Your task to perform on an android device: turn on notifications settings in the gmail app Image 0: 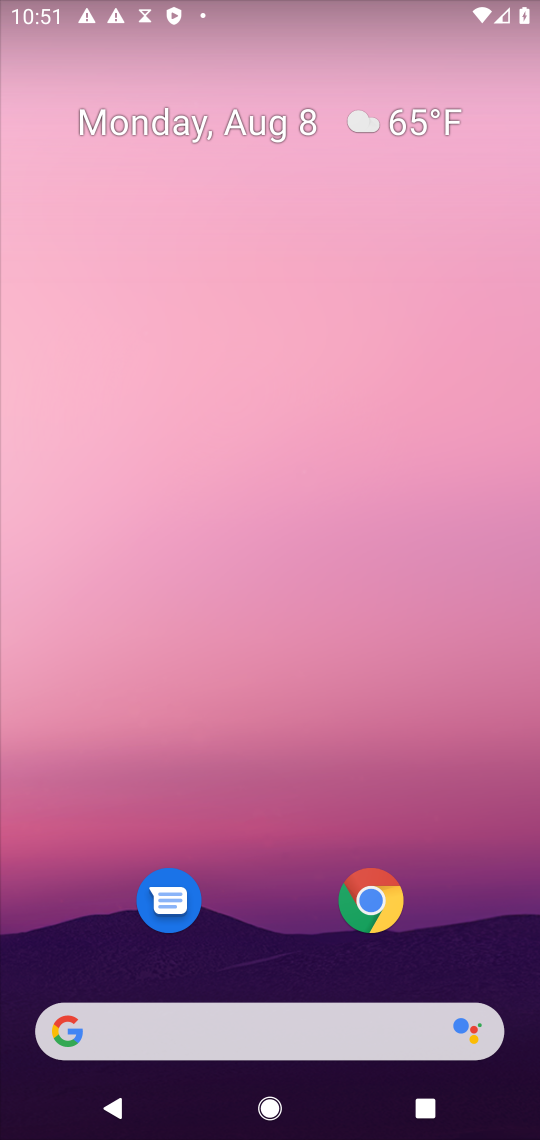
Step 0: drag from (200, 236) to (200, 185)
Your task to perform on an android device: turn on notifications settings in the gmail app Image 1: 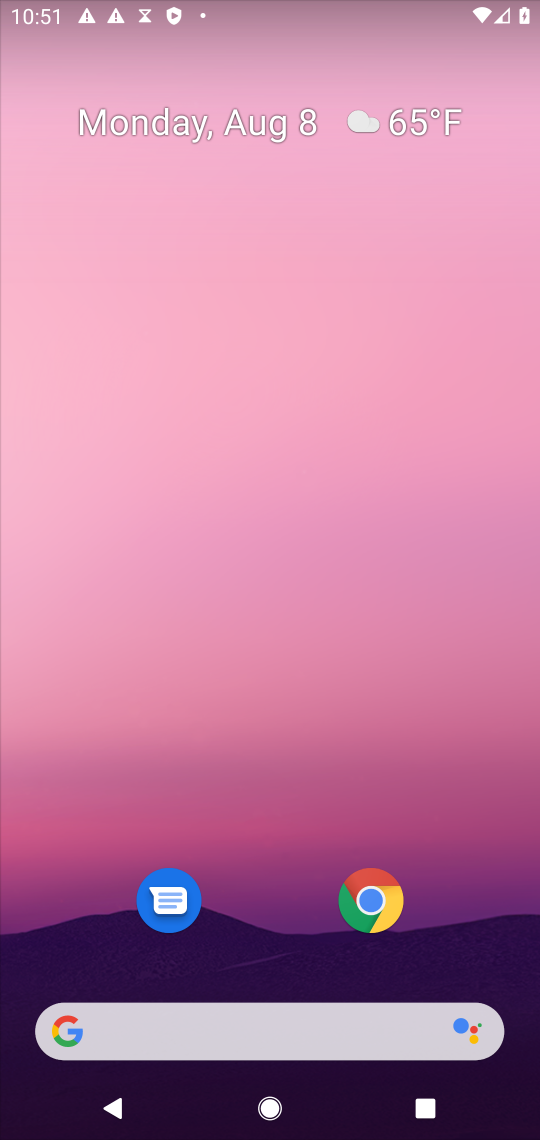
Step 1: drag from (264, 886) to (264, 257)
Your task to perform on an android device: turn on notifications settings in the gmail app Image 2: 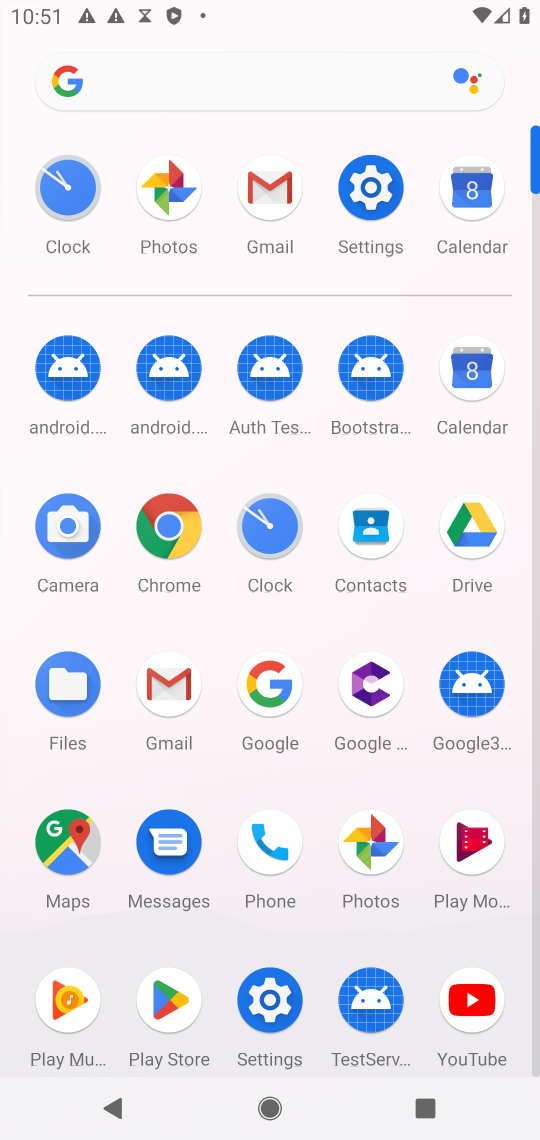
Step 2: click (167, 694)
Your task to perform on an android device: turn on notifications settings in the gmail app Image 3: 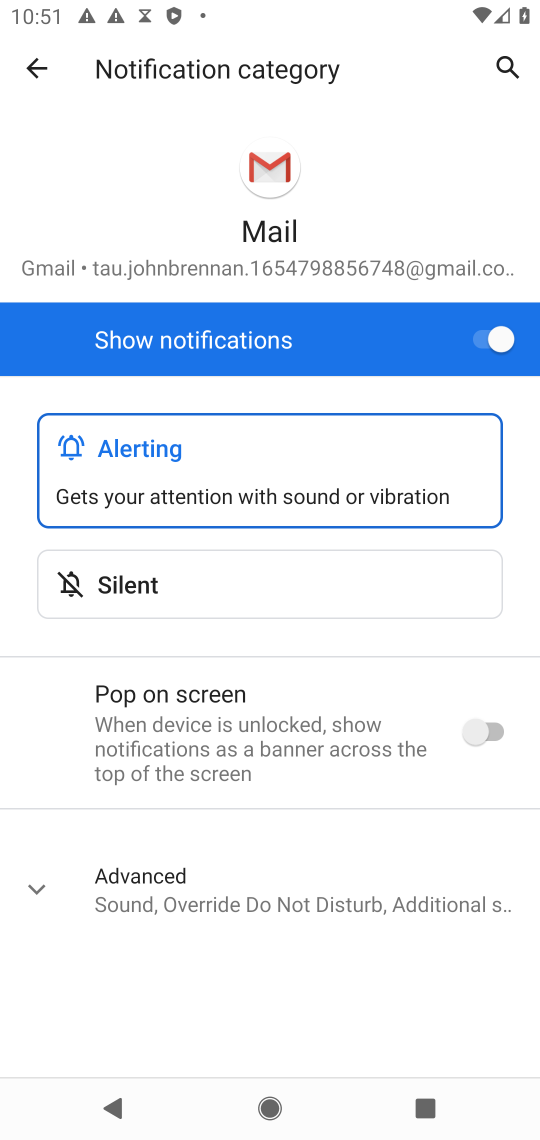
Step 3: task complete